Your task to perform on an android device: turn off notifications settings in the gmail app Image 0: 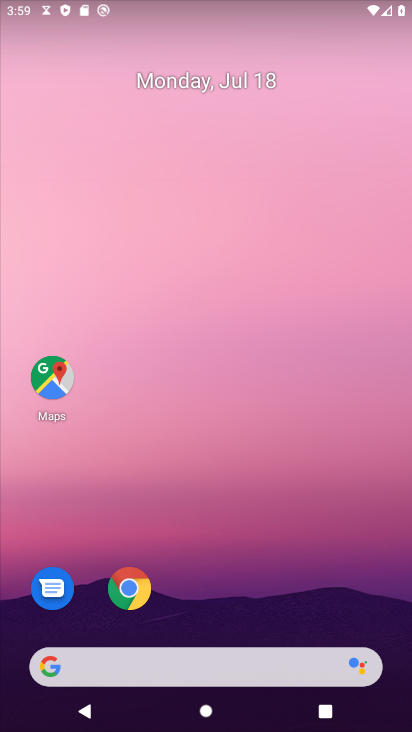
Step 0: drag from (58, 644) to (196, 160)
Your task to perform on an android device: turn off notifications settings in the gmail app Image 1: 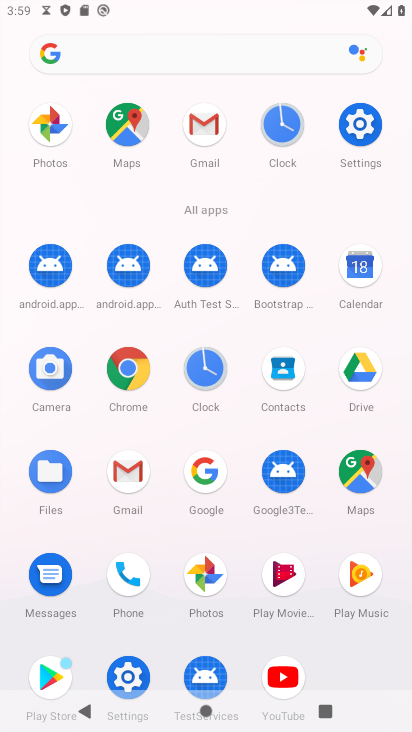
Step 1: click (122, 484)
Your task to perform on an android device: turn off notifications settings in the gmail app Image 2: 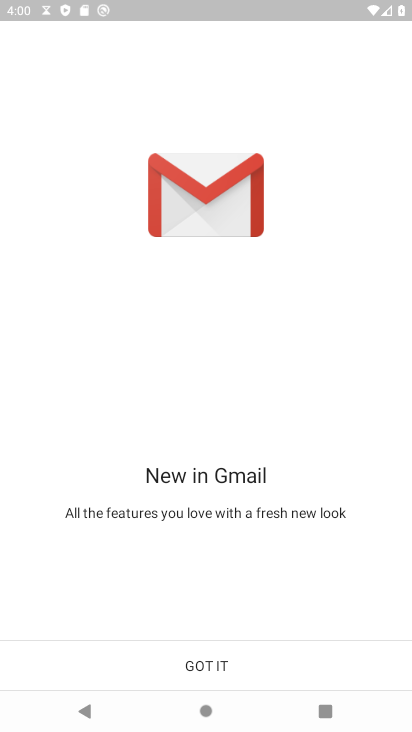
Step 2: drag from (210, 626) to (200, 661)
Your task to perform on an android device: turn off notifications settings in the gmail app Image 3: 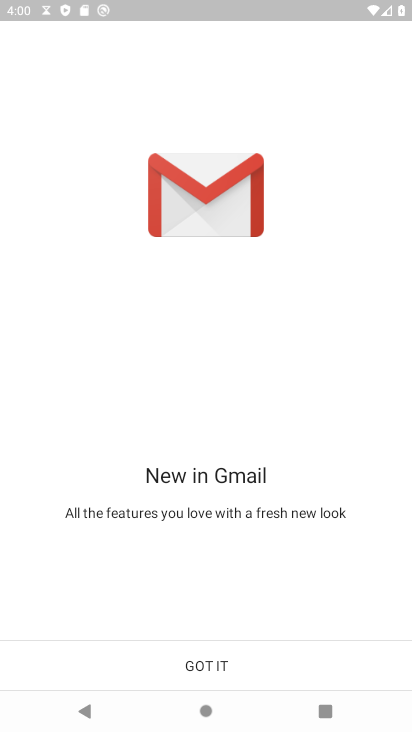
Step 3: click (208, 675)
Your task to perform on an android device: turn off notifications settings in the gmail app Image 4: 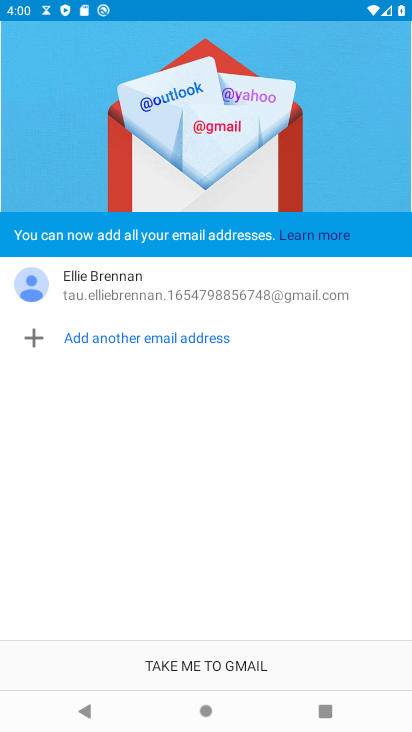
Step 4: click (199, 667)
Your task to perform on an android device: turn off notifications settings in the gmail app Image 5: 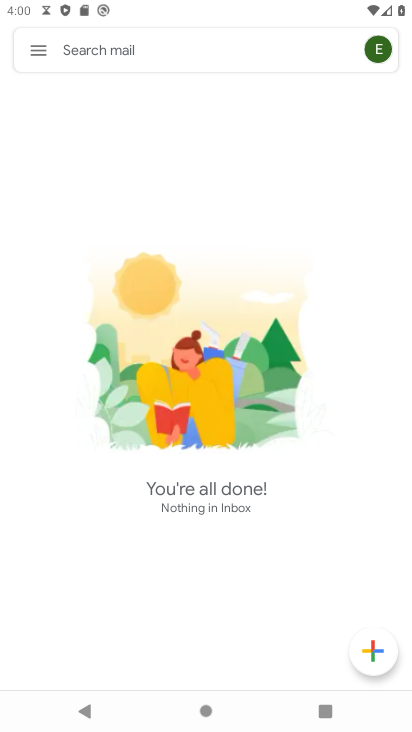
Step 5: click (41, 48)
Your task to perform on an android device: turn off notifications settings in the gmail app Image 6: 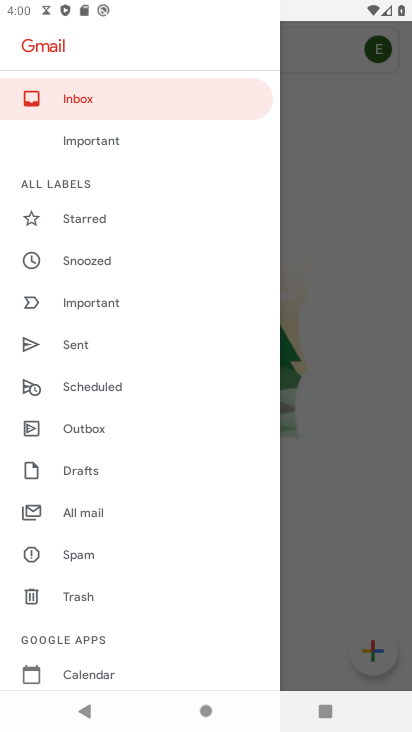
Step 6: drag from (149, 630) to (207, 352)
Your task to perform on an android device: turn off notifications settings in the gmail app Image 7: 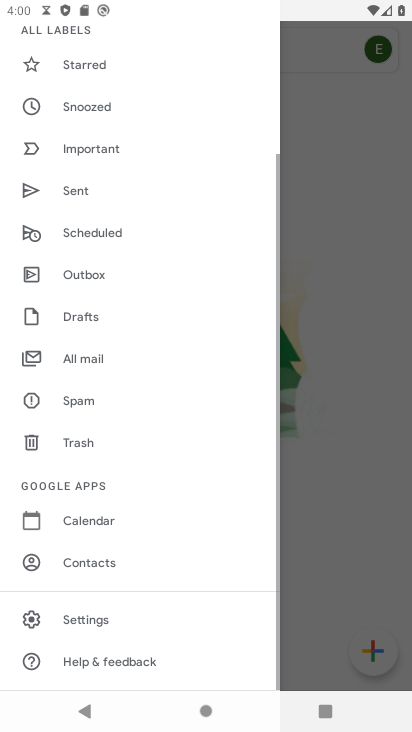
Step 7: click (110, 618)
Your task to perform on an android device: turn off notifications settings in the gmail app Image 8: 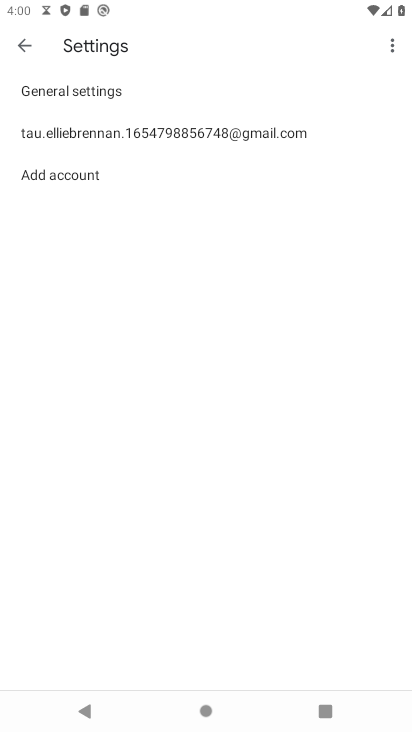
Step 8: click (77, 145)
Your task to perform on an android device: turn off notifications settings in the gmail app Image 9: 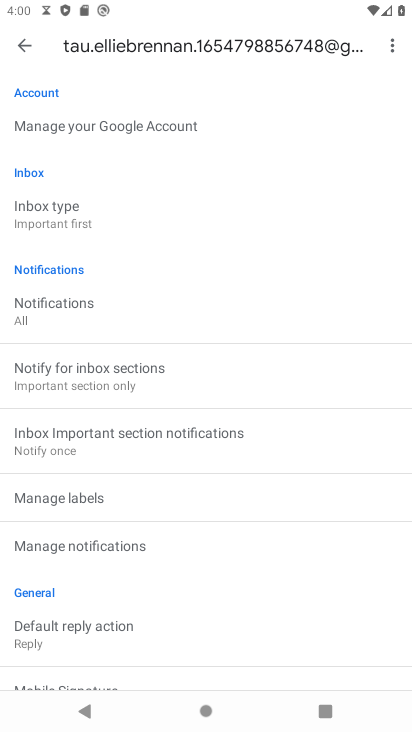
Step 9: click (65, 305)
Your task to perform on an android device: turn off notifications settings in the gmail app Image 10: 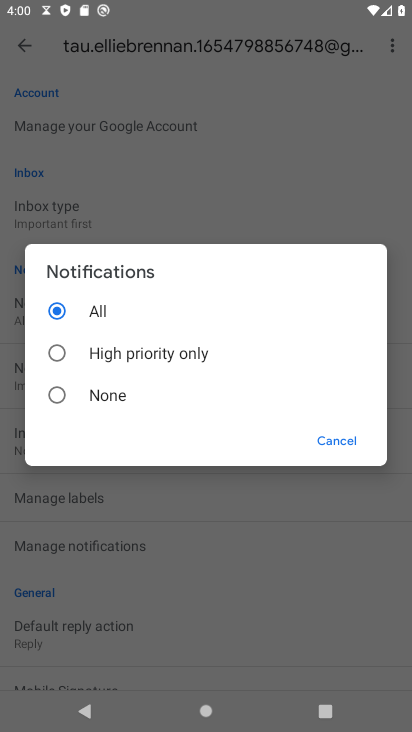
Step 10: click (326, 441)
Your task to perform on an android device: turn off notifications settings in the gmail app Image 11: 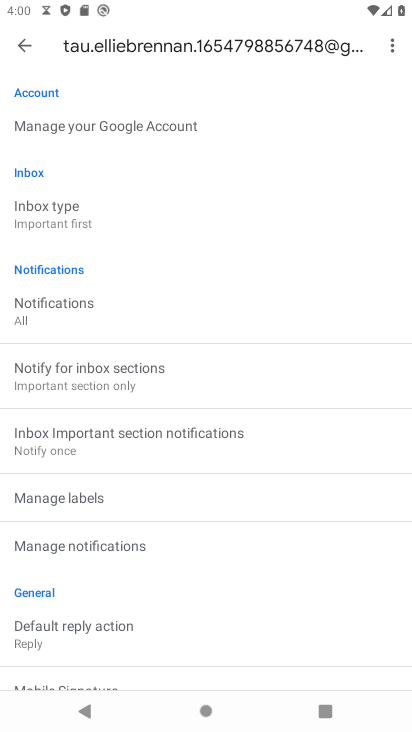
Step 11: task complete